Your task to perform on an android device: Open settings on Google Maps Image 0: 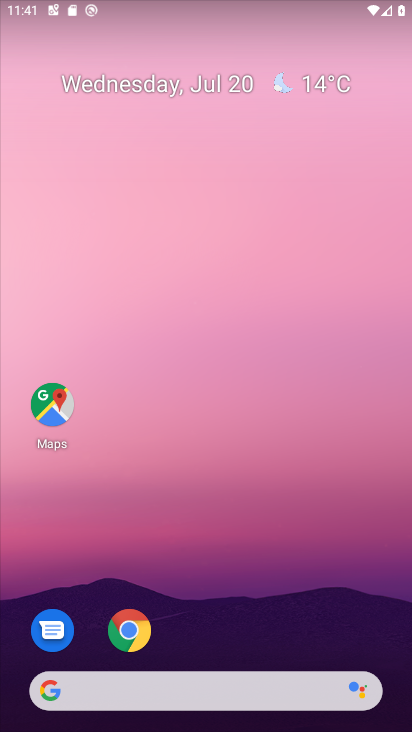
Step 0: drag from (207, 639) to (190, 198)
Your task to perform on an android device: Open settings on Google Maps Image 1: 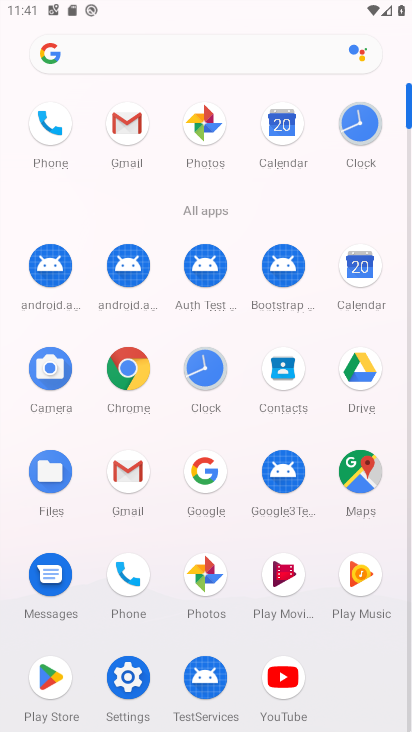
Step 1: click (359, 495)
Your task to perform on an android device: Open settings on Google Maps Image 2: 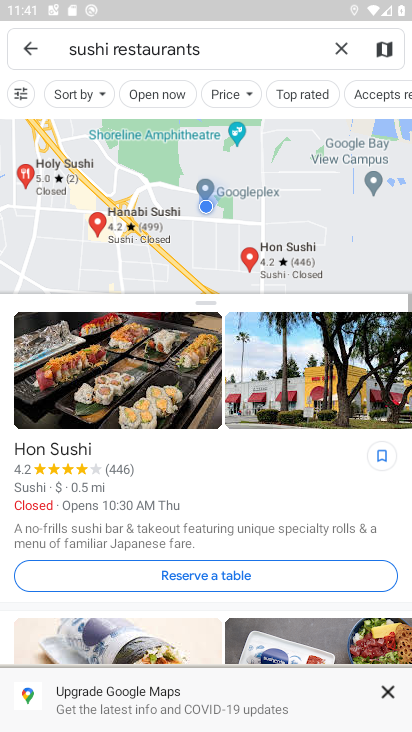
Step 2: click (30, 38)
Your task to perform on an android device: Open settings on Google Maps Image 3: 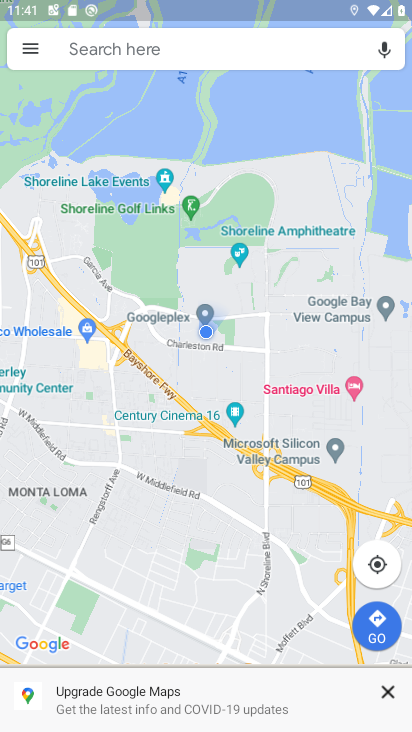
Step 3: click (22, 55)
Your task to perform on an android device: Open settings on Google Maps Image 4: 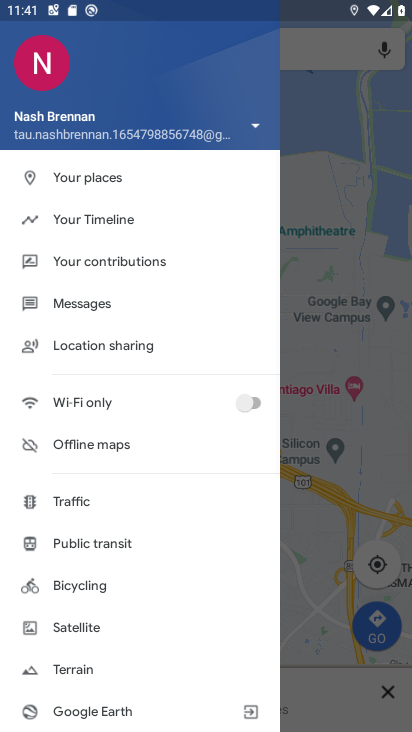
Step 4: drag from (74, 613) to (145, 39)
Your task to perform on an android device: Open settings on Google Maps Image 5: 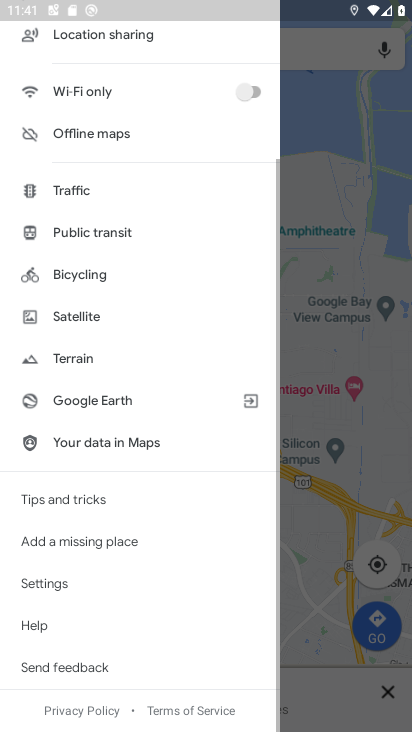
Step 5: click (35, 590)
Your task to perform on an android device: Open settings on Google Maps Image 6: 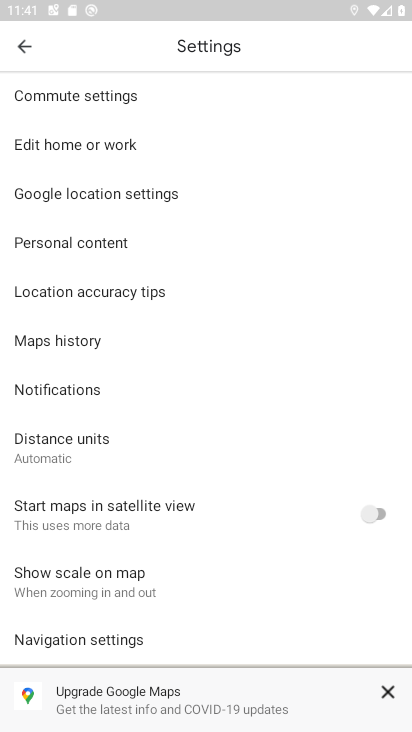
Step 6: task complete